Your task to perform on an android device: snooze an email in the gmail app Image 0: 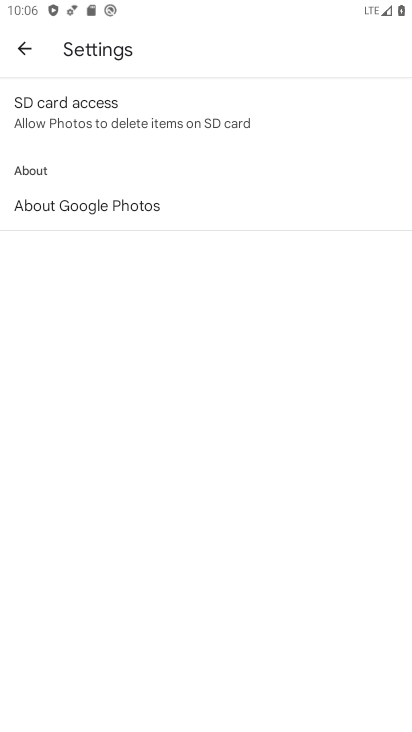
Step 0: press home button
Your task to perform on an android device: snooze an email in the gmail app Image 1: 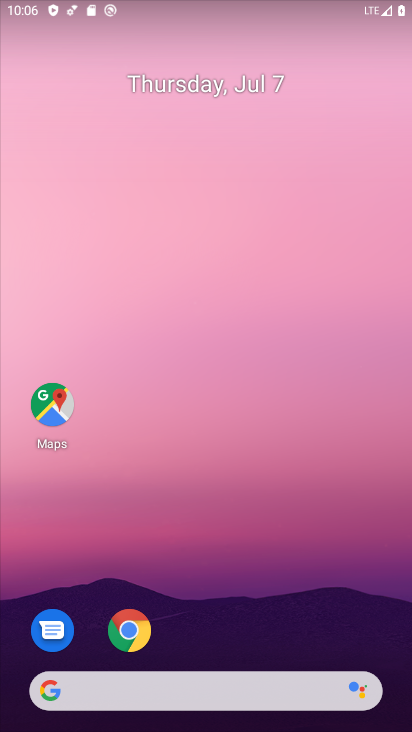
Step 1: drag from (224, 650) to (211, 49)
Your task to perform on an android device: snooze an email in the gmail app Image 2: 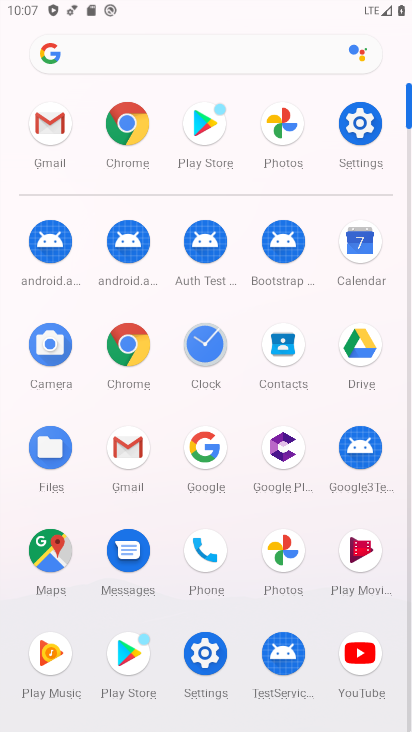
Step 2: click (125, 436)
Your task to perform on an android device: snooze an email in the gmail app Image 3: 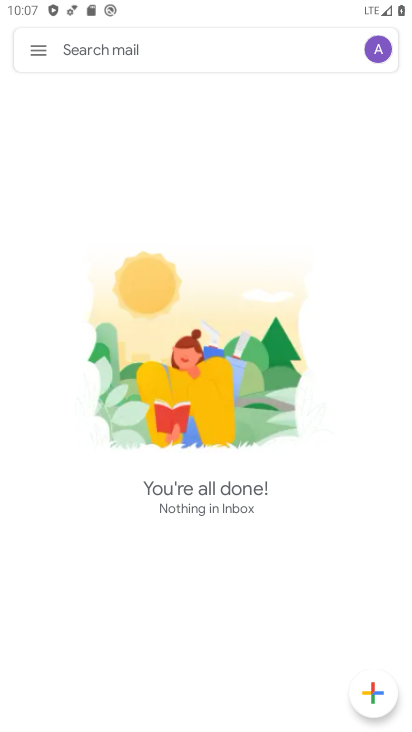
Step 3: click (39, 44)
Your task to perform on an android device: snooze an email in the gmail app Image 4: 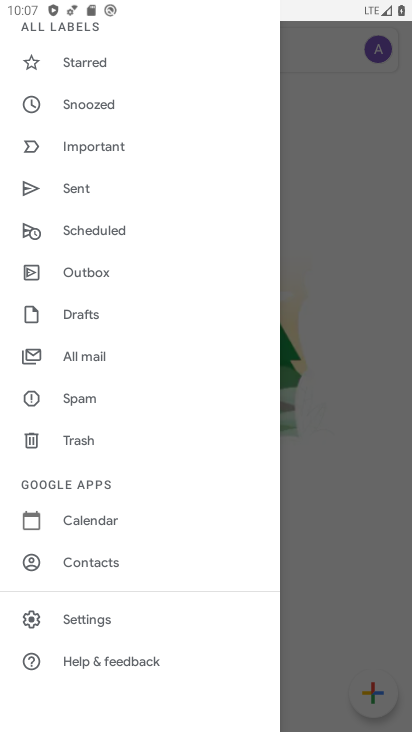
Step 4: click (73, 353)
Your task to perform on an android device: snooze an email in the gmail app Image 5: 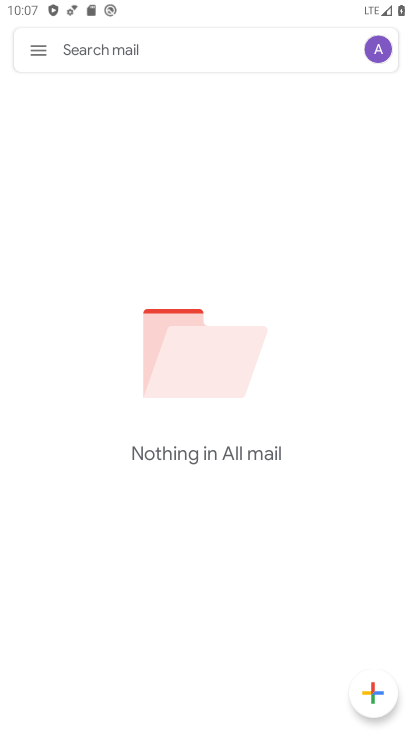
Step 5: task complete